Your task to perform on an android device: Go to wifi settings Image 0: 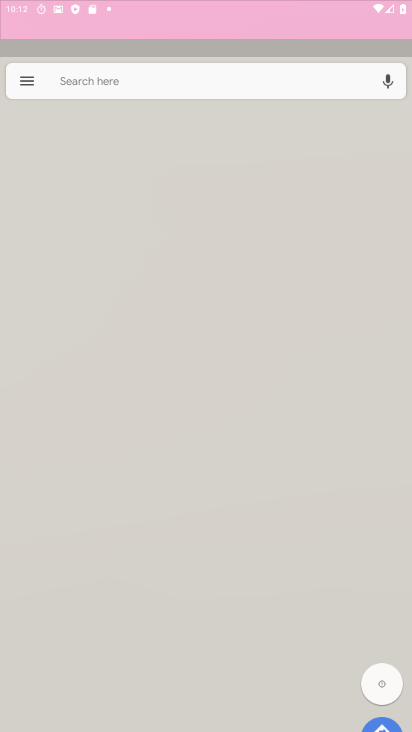
Step 0: drag from (222, 655) to (212, 131)
Your task to perform on an android device: Go to wifi settings Image 1: 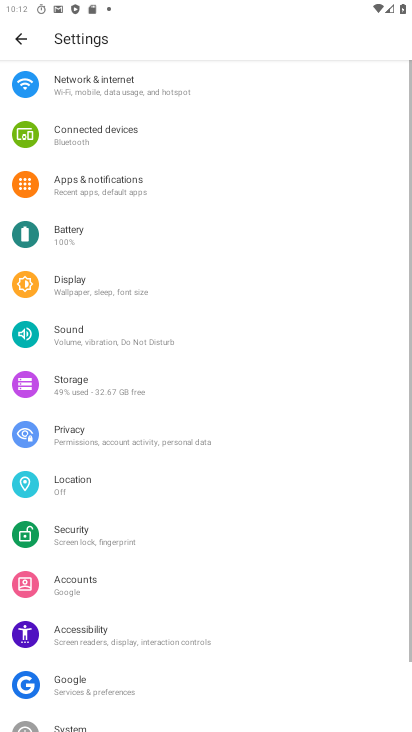
Step 1: click (109, 83)
Your task to perform on an android device: Go to wifi settings Image 2: 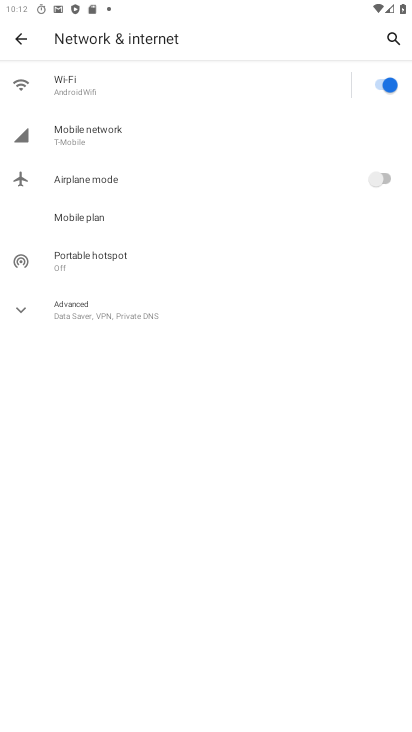
Step 2: click (98, 85)
Your task to perform on an android device: Go to wifi settings Image 3: 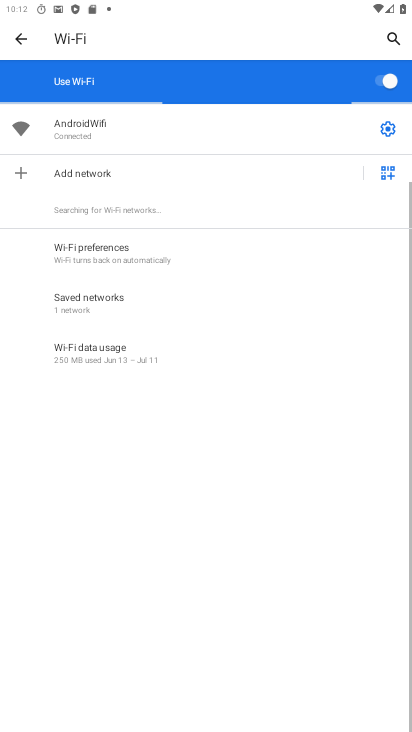
Step 3: click (380, 120)
Your task to perform on an android device: Go to wifi settings Image 4: 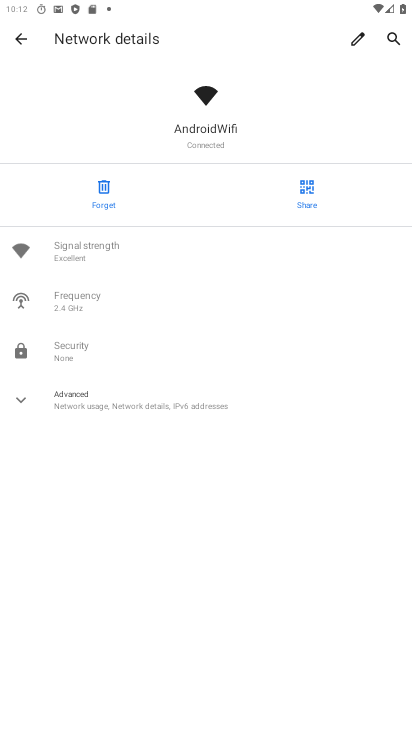
Step 4: task complete